Your task to perform on an android device: find snoozed emails in the gmail app Image 0: 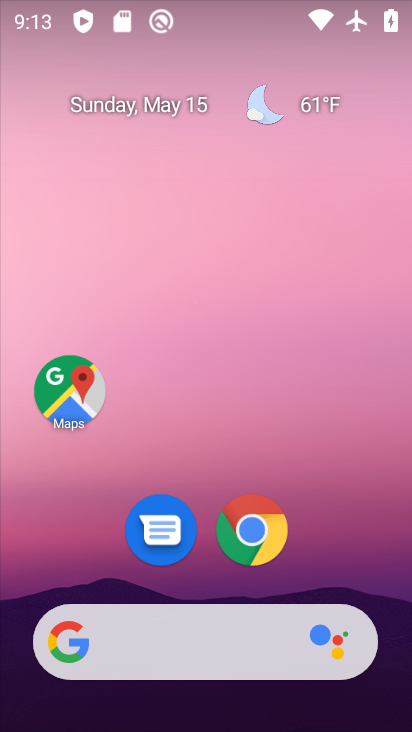
Step 0: drag from (204, 720) to (182, 51)
Your task to perform on an android device: find snoozed emails in the gmail app Image 1: 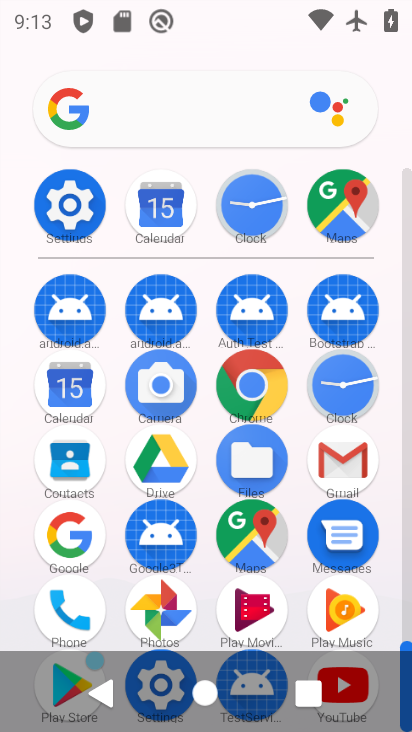
Step 1: click (340, 464)
Your task to perform on an android device: find snoozed emails in the gmail app Image 2: 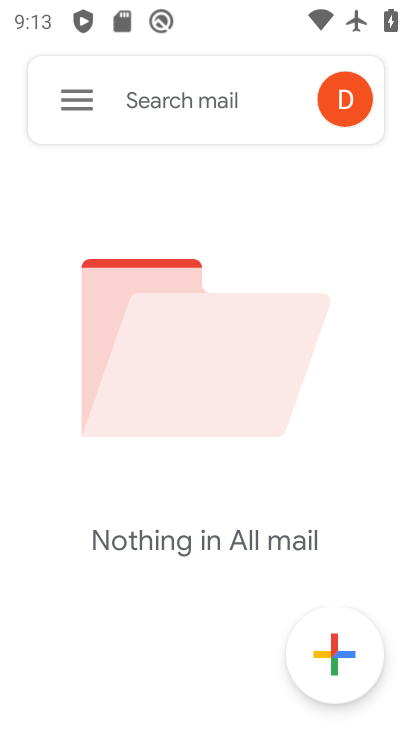
Step 2: click (68, 95)
Your task to perform on an android device: find snoozed emails in the gmail app Image 3: 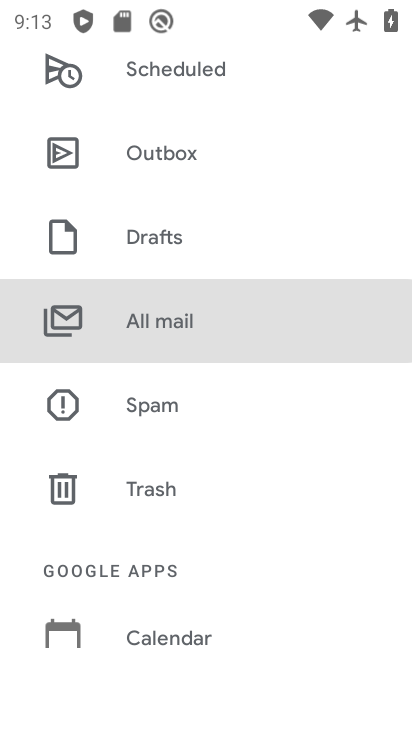
Step 3: drag from (252, 191) to (278, 440)
Your task to perform on an android device: find snoozed emails in the gmail app Image 4: 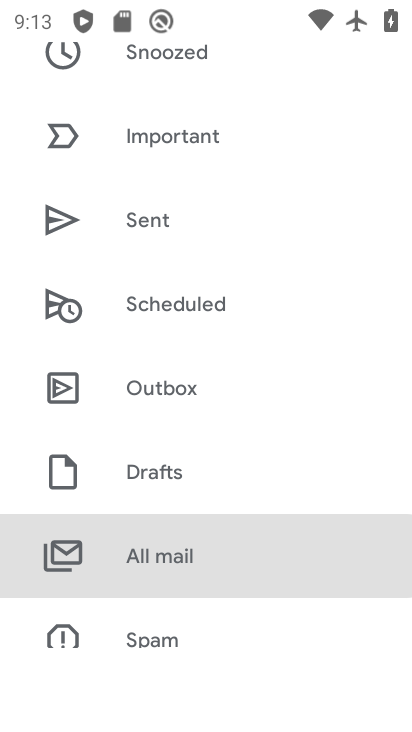
Step 4: drag from (225, 94) to (242, 507)
Your task to perform on an android device: find snoozed emails in the gmail app Image 5: 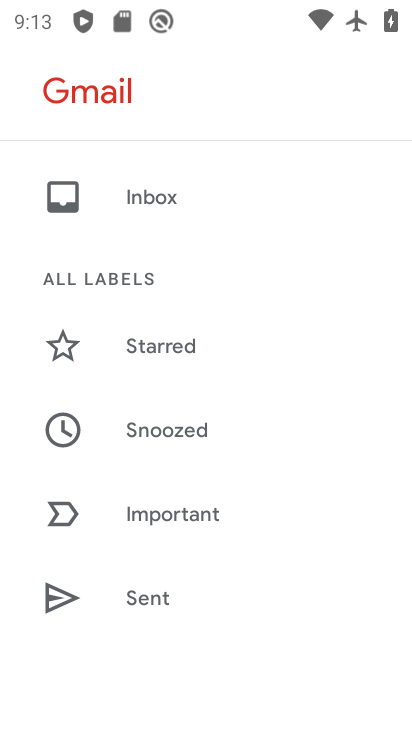
Step 5: click (140, 426)
Your task to perform on an android device: find snoozed emails in the gmail app Image 6: 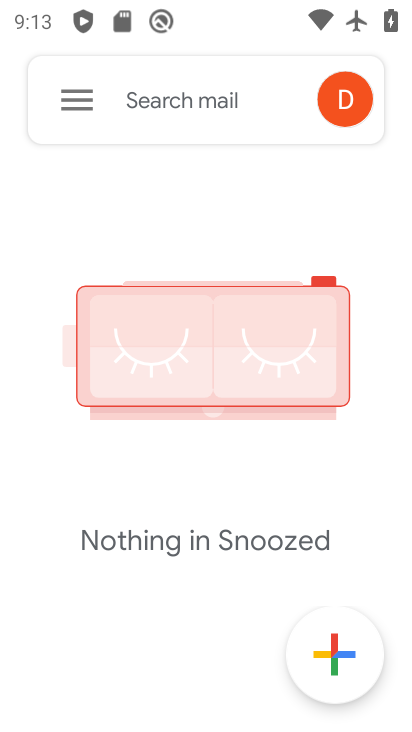
Step 6: task complete